Your task to perform on an android device: Go to Google Image 0: 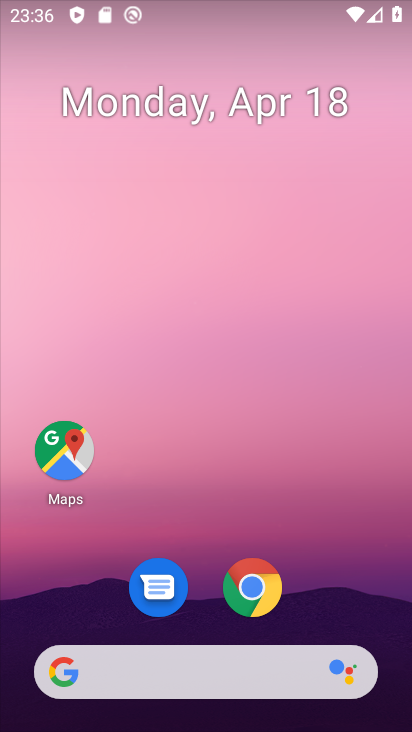
Step 0: drag from (381, 570) to (381, 197)
Your task to perform on an android device: Go to Google Image 1: 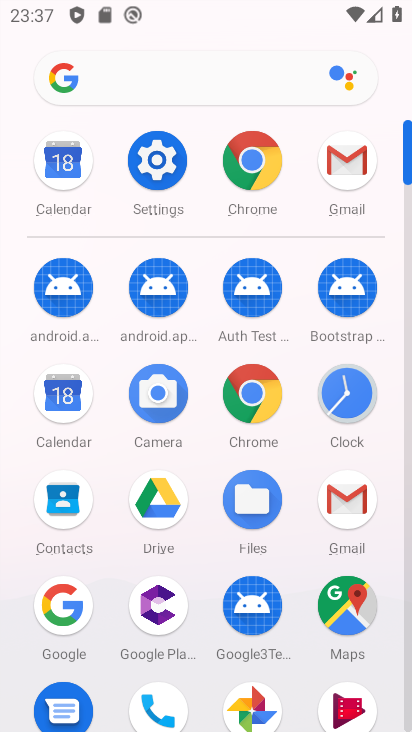
Step 1: click (61, 592)
Your task to perform on an android device: Go to Google Image 2: 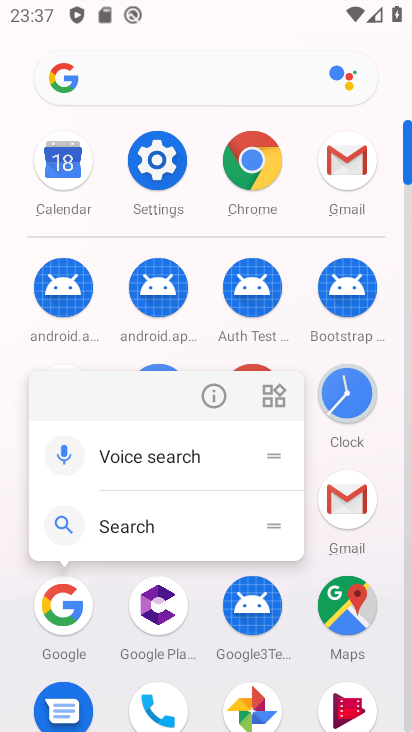
Step 2: click (64, 603)
Your task to perform on an android device: Go to Google Image 3: 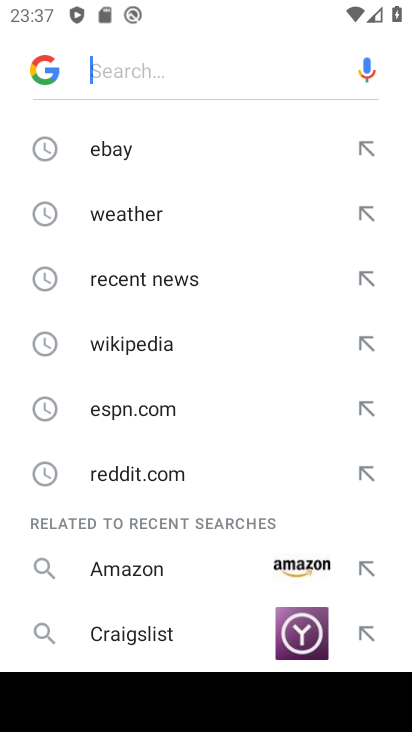
Step 3: task complete